Your task to perform on an android device: set the stopwatch Image 0: 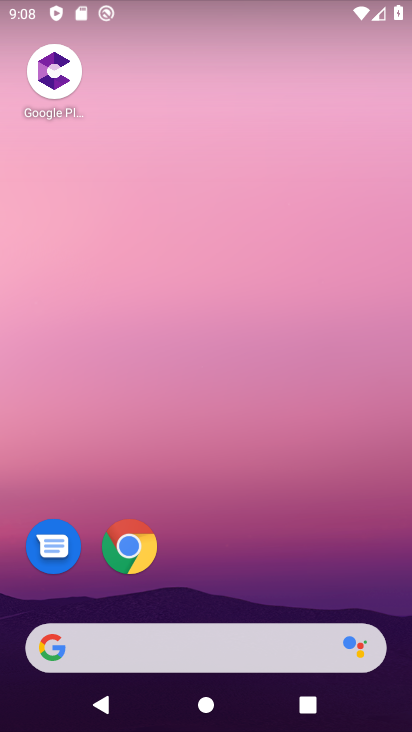
Step 0: drag from (268, 580) to (316, 164)
Your task to perform on an android device: set the stopwatch Image 1: 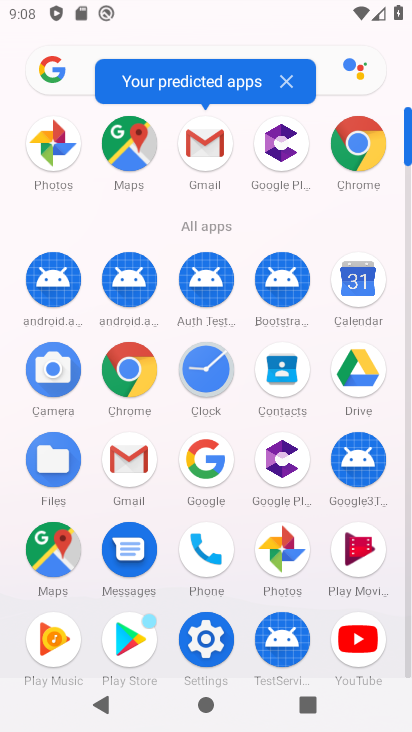
Step 1: click (203, 377)
Your task to perform on an android device: set the stopwatch Image 2: 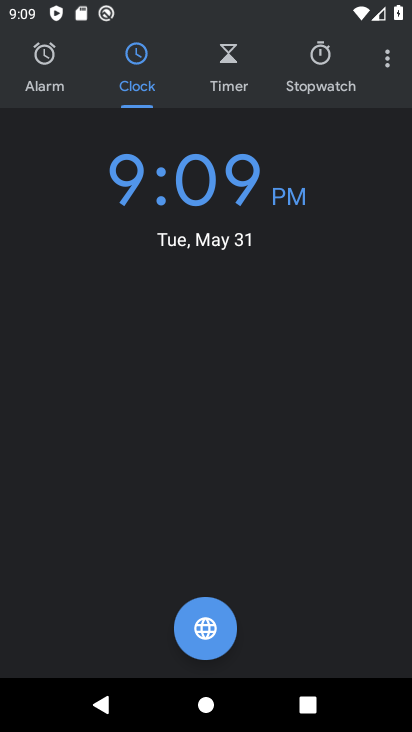
Step 2: click (321, 53)
Your task to perform on an android device: set the stopwatch Image 3: 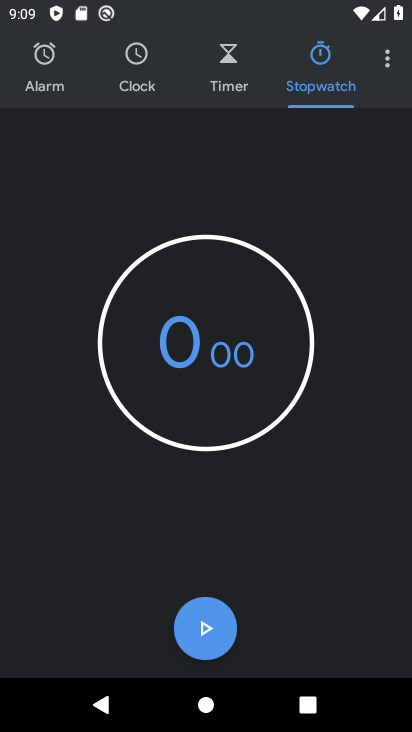
Step 3: click (211, 626)
Your task to perform on an android device: set the stopwatch Image 4: 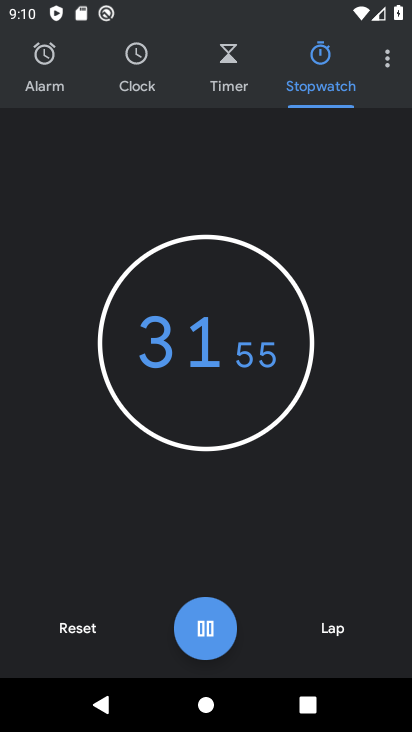
Step 4: click (211, 626)
Your task to perform on an android device: set the stopwatch Image 5: 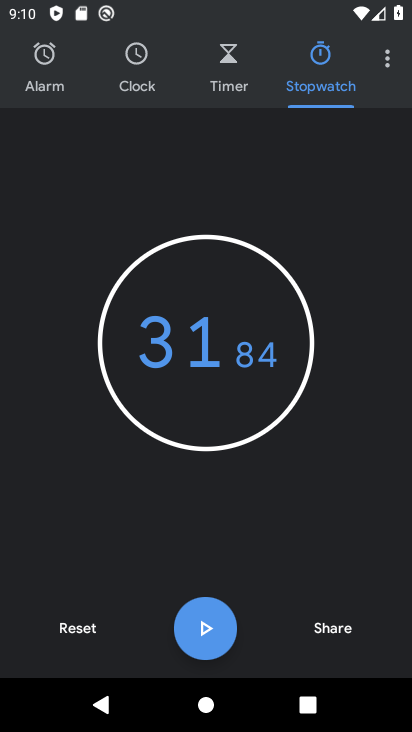
Step 5: click (211, 626)
Your task to perform on an android device: set the stopwatch Image 6: 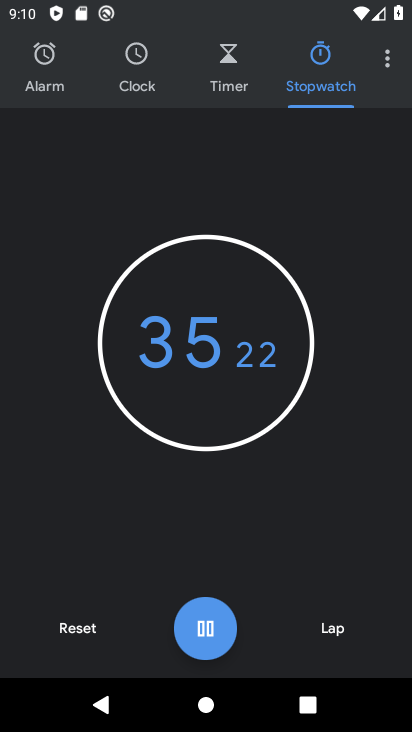
Step 6: task complete